Your task to perform on an android device: Open internet settings Image 0: 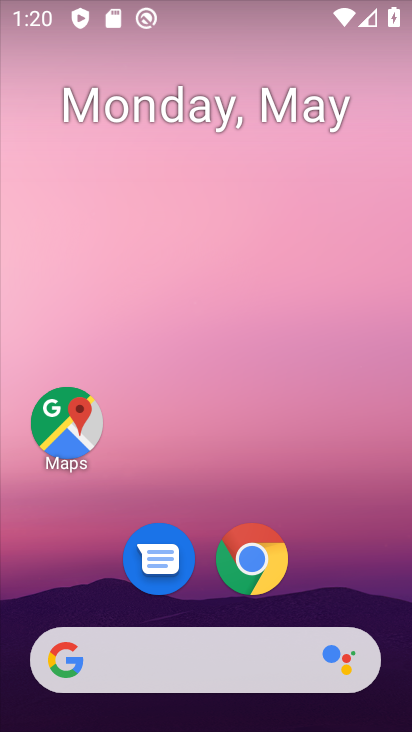
Step 0: drag from (317, 540) to (193, 38)
Your task to perform on an android device: Open internet settings Image 1: 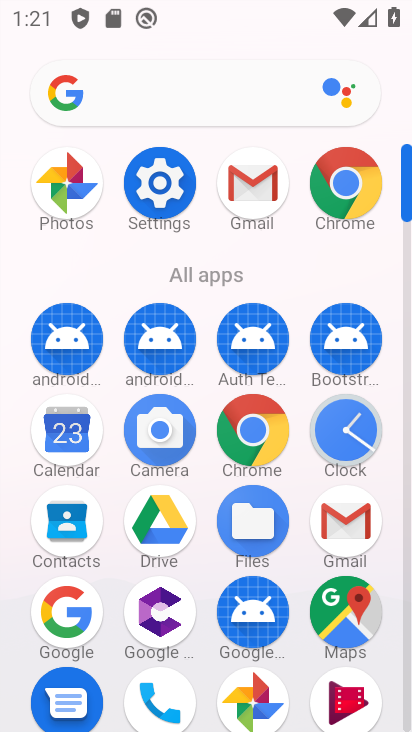
Step 1: click (175, 187)
Your task to perform on an android device: Open internet settings Image 2: 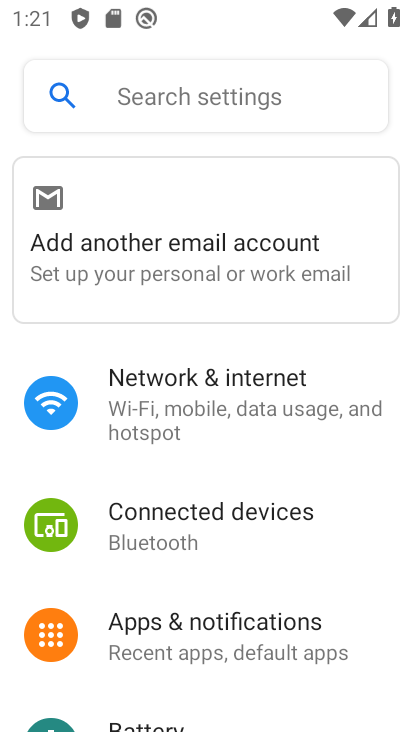
Step 2: click (244, 411)
Your task to perform on an android device: Open internet settings Image 3: 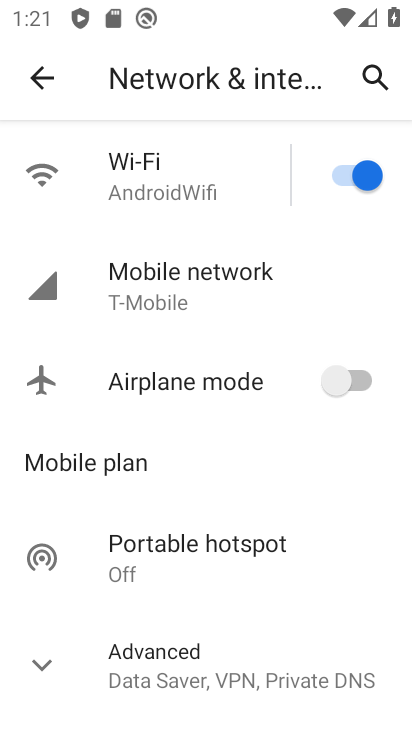
Step 3: click (162, 301)
Your task to perform on an android device: Open internet settings Image 4: 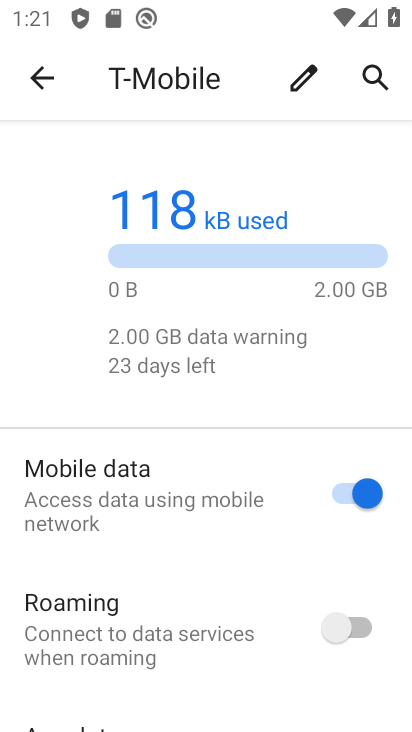
Step 4: click (42, 64)
Your task to perform on an android device: Open internet settings Image 5: 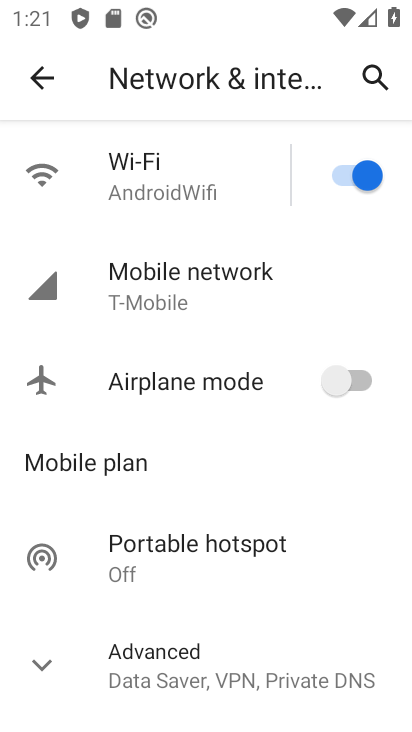
Step 5: drag from (241, 358) to (269, 62)
Your task to perform on an android device: Open internet settings Image 6: 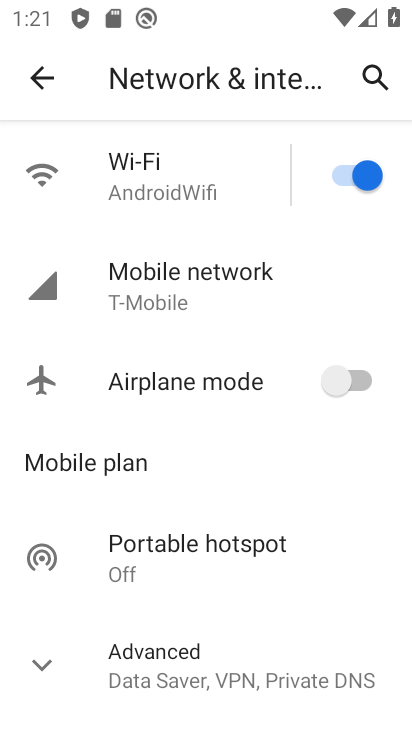
Step 6: click (213, 666)
Your task to perform on an android device: Open internet settings Image 7: 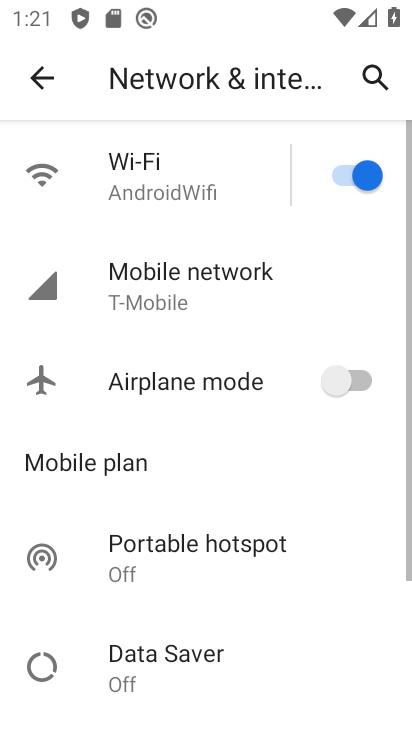
Step 7: task complete